Your task to perform on an android device: check google app version Image 0: 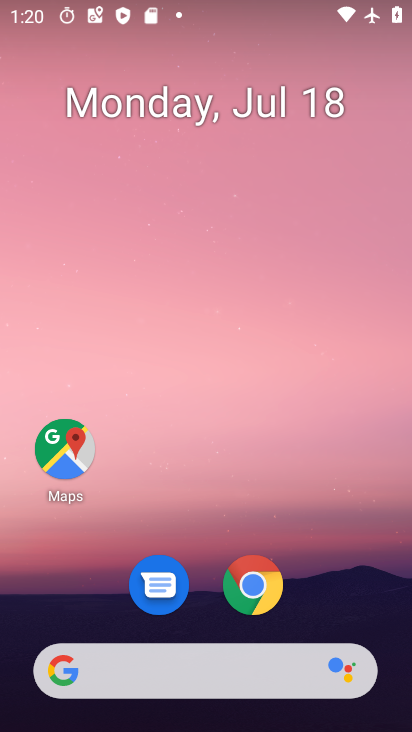
Step 0: press home button
Your task to perform on an android device: check google app version Image 1: 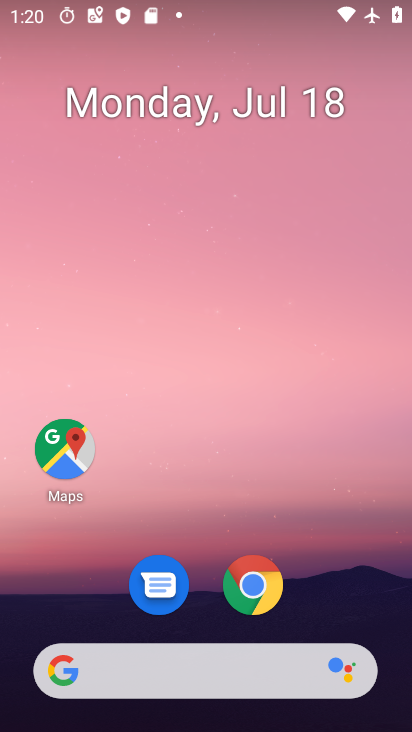
Step 1: drag from (240, 687) to (302, 50)
Your task to perform on an android device: check google app version Image 2: 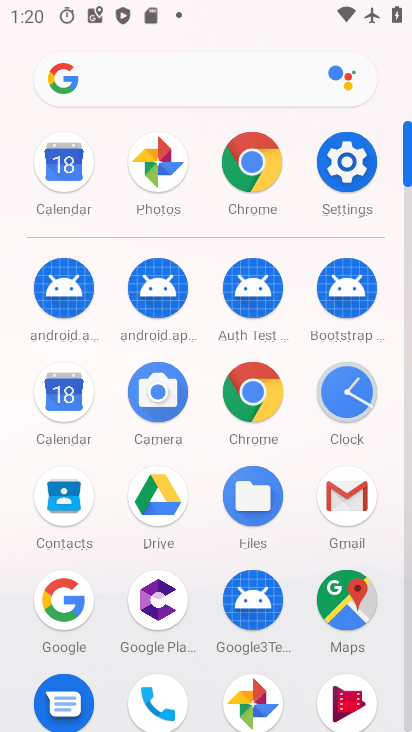
Step 2: click (71, 604)
Your task to perform on an android device: check google app version Image 3: 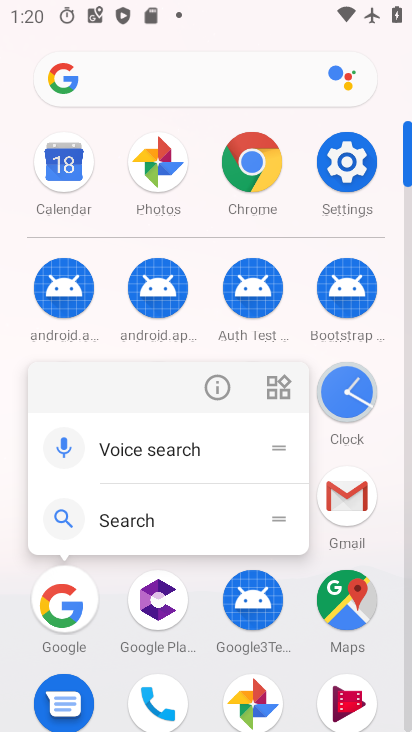
Step 3: click (223, 389)
Your task to perform on an android device: check google app version Image 4: 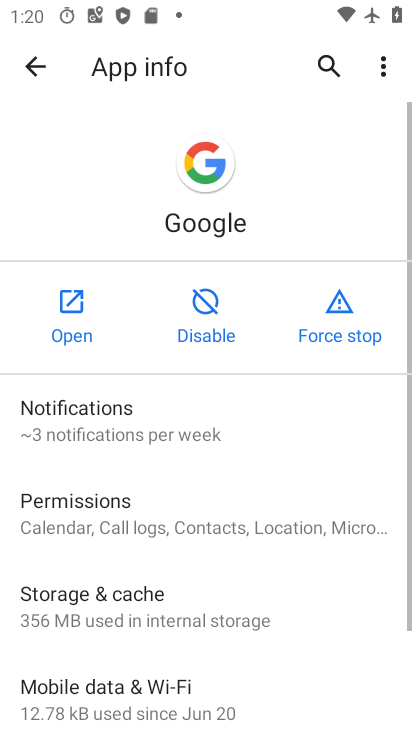
Step 4: drag from (265, 655) to (365, 61)
Your task to perform on an android device: check google app version Image 5: 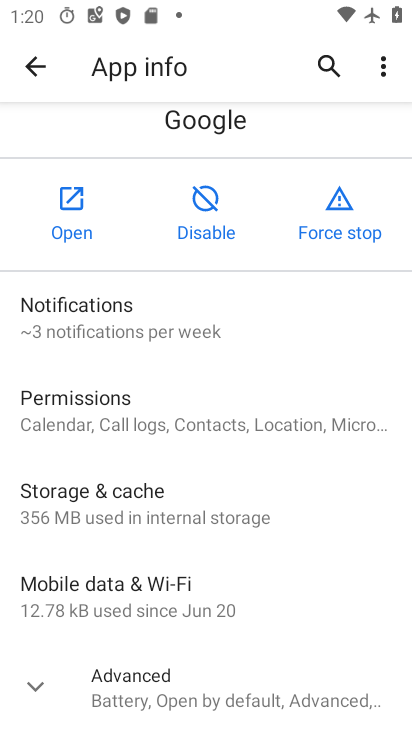
Step 5: click (138, 675)
Your task to perform on an android device: check google app version Image 6: 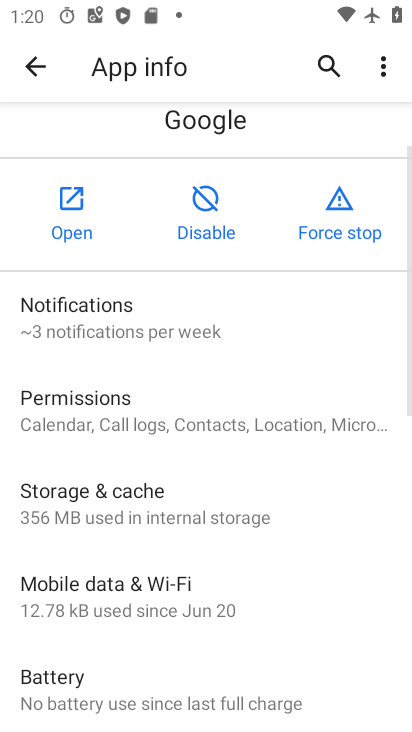
Step 6: task complete